Your task to perform on an android device: Open sound settings Image 0: 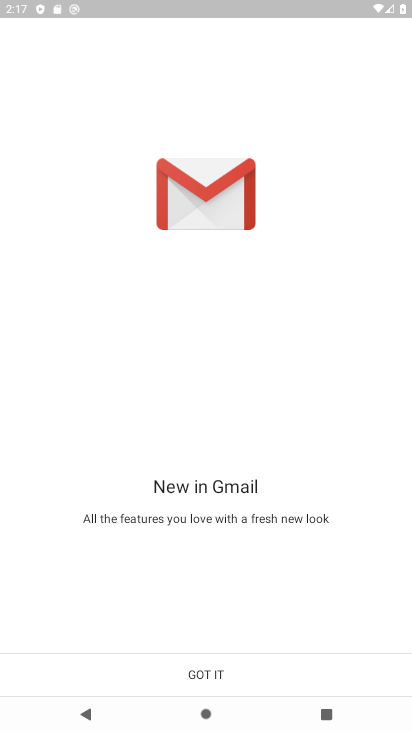
Step 0: press home button
Your task to perform on an android device: Open sound settings Image 1: 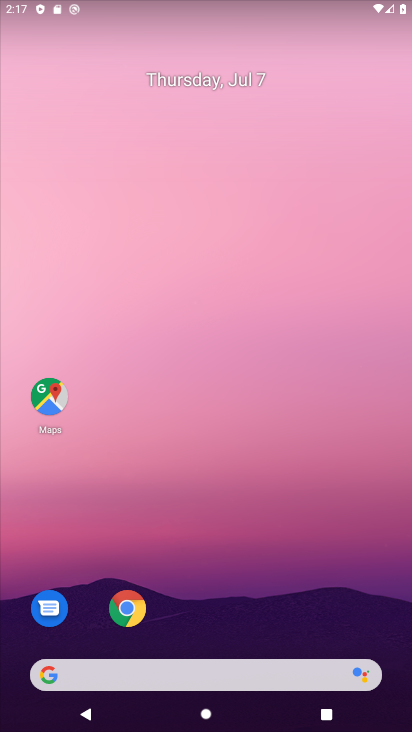
Step 1: drag from (276, 622) to (175, 35)
Your task to perform on an android device: Open sound settings Image 2: 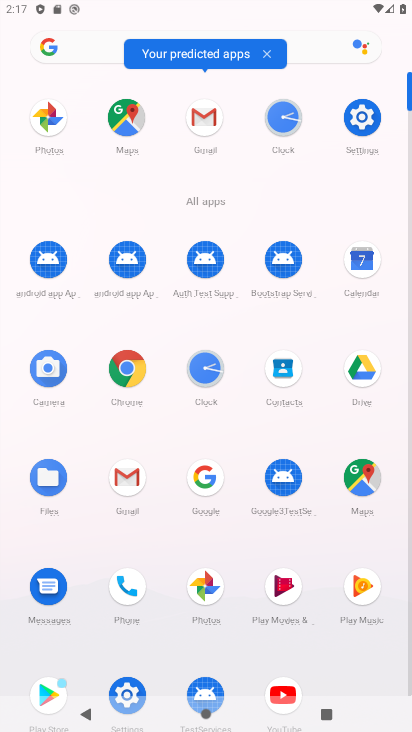
Step 2: click (357, 128)
Your task to perform on an android device: Open sound settings Image 3: 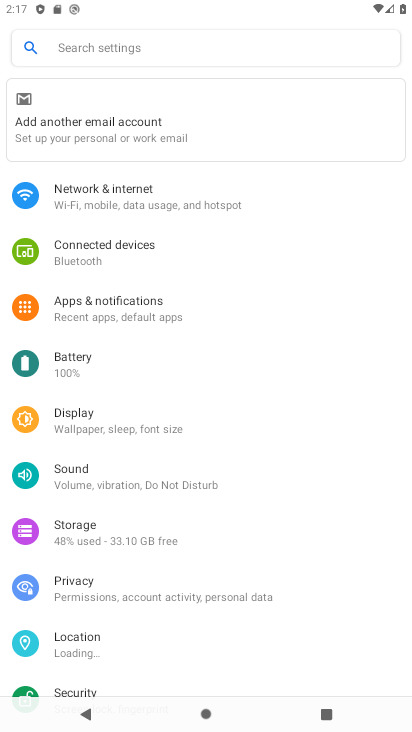
Step 3: click (162, 481)
Your task to perform on an android device: Open sound settings Image 4: 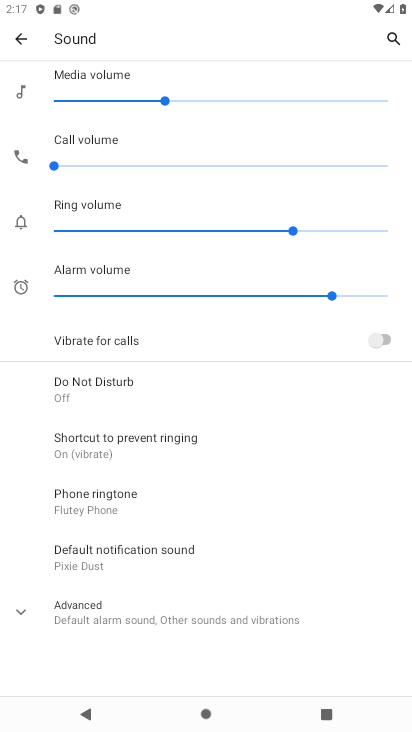
Step 4: task complete